Your task to perform on an android device: allow cookies in the chrome app Image 0: 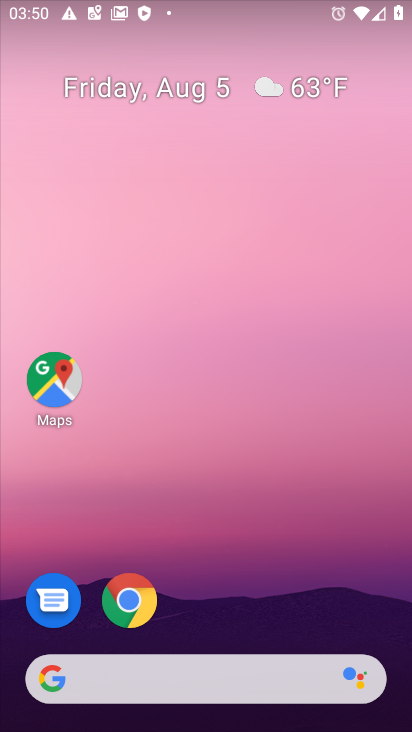
Step 0: click (129, 600)
Your task to perform on an android device: allow cookies in the chrome app Image 1: 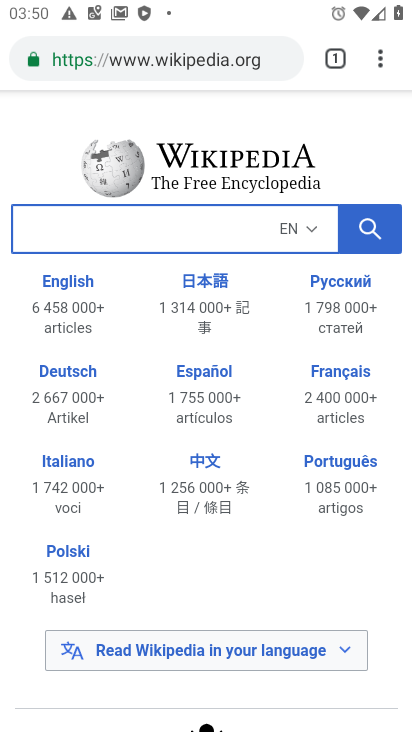
Step 1: click (378, 57)
Your task to perform on an android device: allow cookies in the chrome app Image 2: 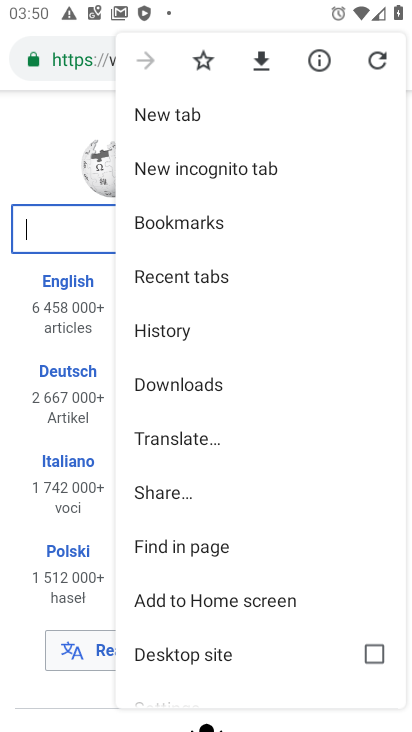
Step 2: drag from (189, 577) to (217, 467)
Your task to perform on an android device: allow cookies in the chrome app Image 3: 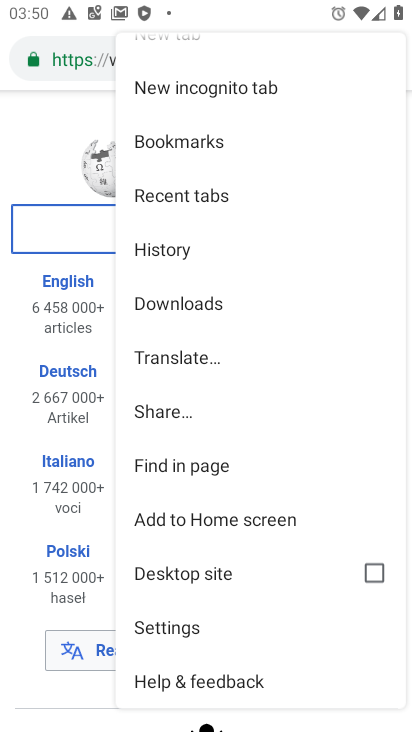
Step 3: click (181, 629)
Your task to perform on an android device: allow cookies in the chrome app Image 4: 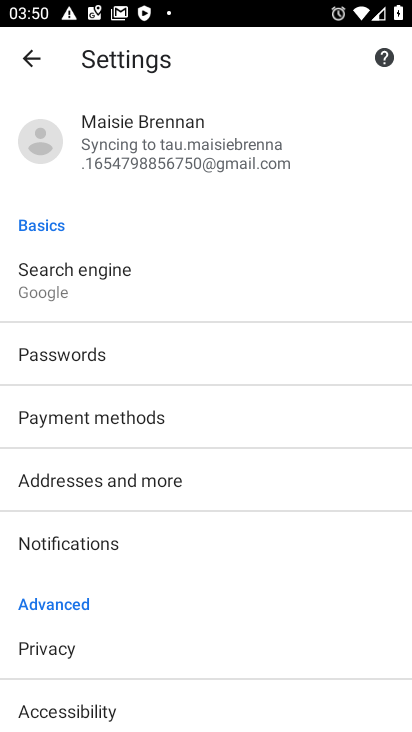
Step 4: drag from (137, 599) to (257, 439)
Your task to perform on an android device: allow cookies in the chrome app Image 5: 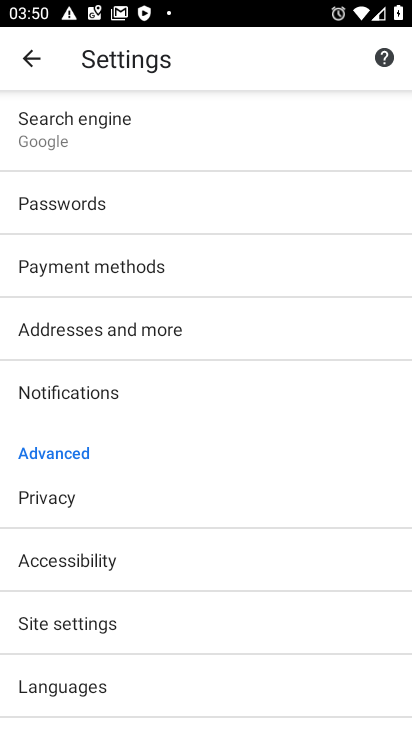
Step 5: click (84, 624)
Your task to perform on an android device: allow cookies in the chrome app Image 6: 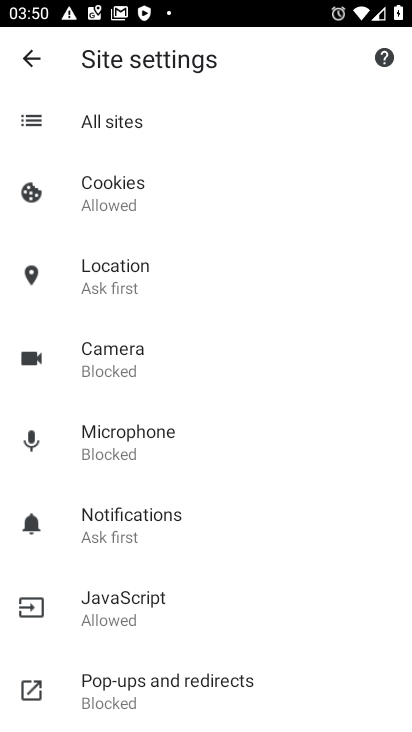
Step 6: click (118, 210)
Your task to perform on an android device: allow cookies in the chrome app Image 7: 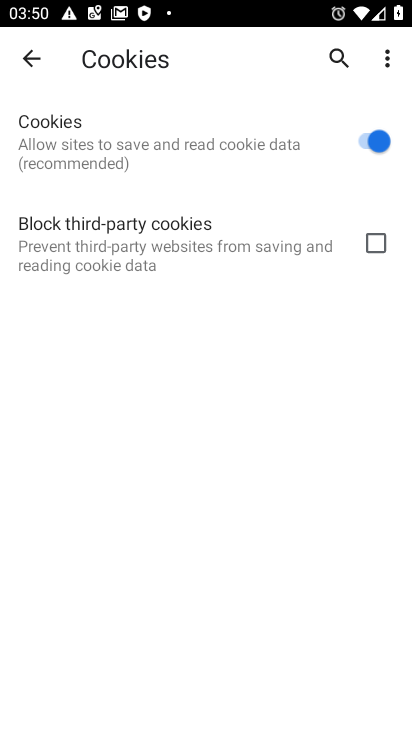
Step 7: click (364, 242)
Your task to perform on an android device: allow cookies in the chrome app Image 8: 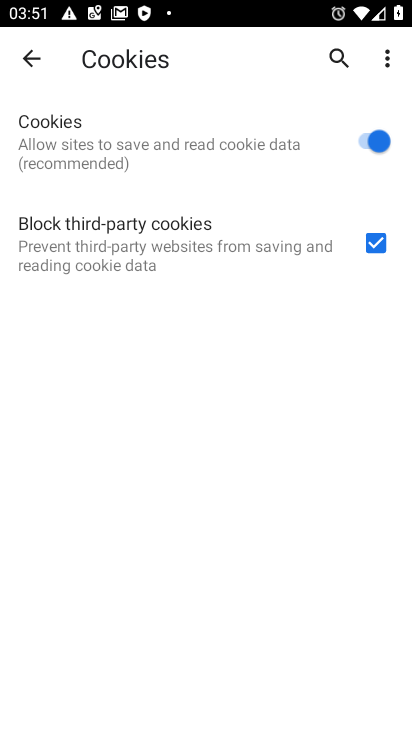
Step 8: task complete